Your task to perform on an android device: add a contact in the contacts app Image 0: 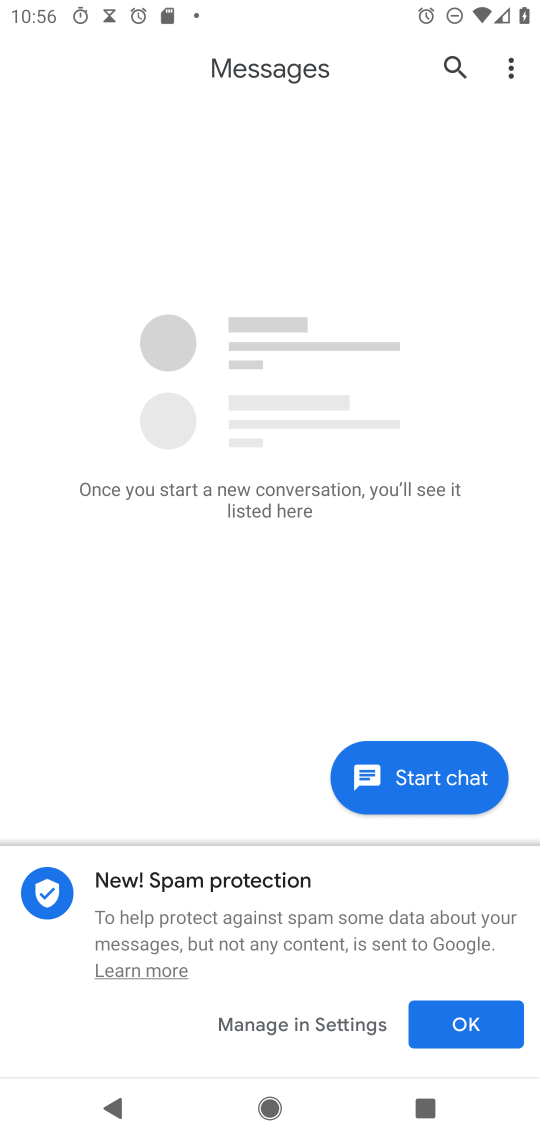
Step 0: press home button
Your task to perform on an android device: add a contact in the contacts app Image 1: 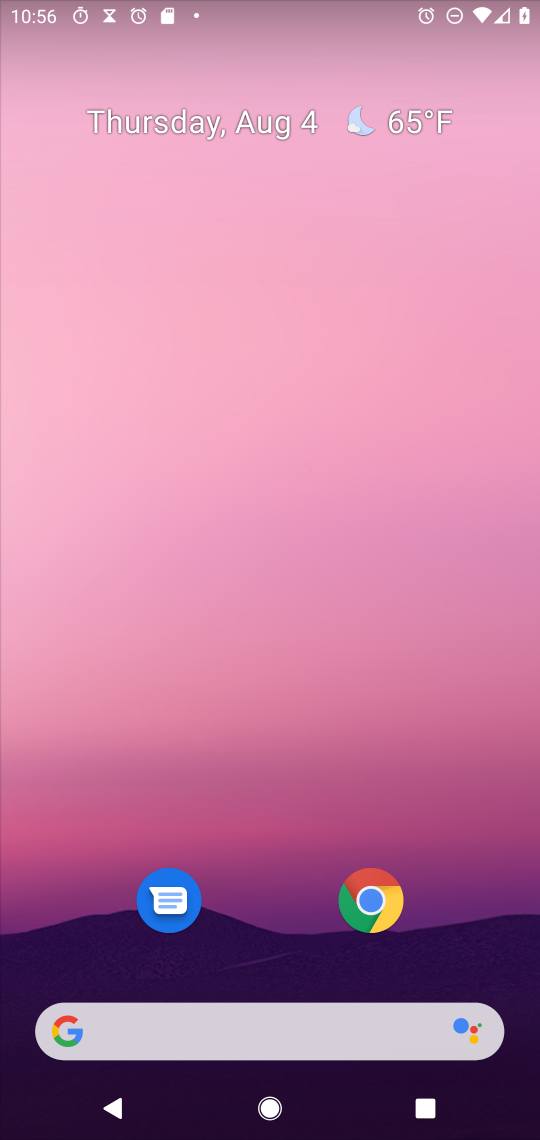
Step 1: drag from (255, 1026) to (210, 125)
Your task to perform on an android device: add a contact in the contacts app Image 2: 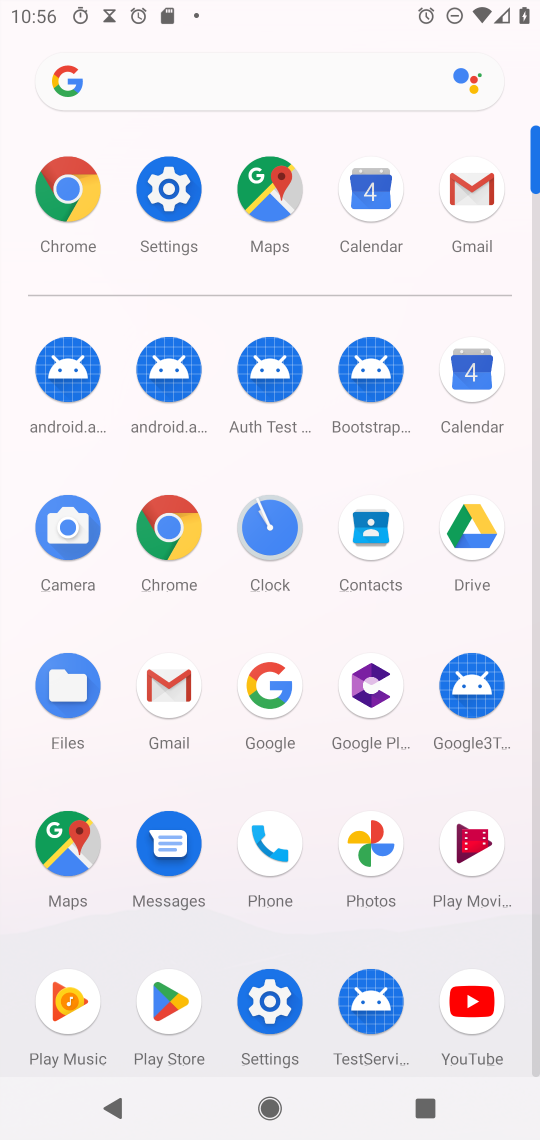
Step 2: click (366, 525)
Your task to perform on an android device: add a contact in the contacts app Image 3: 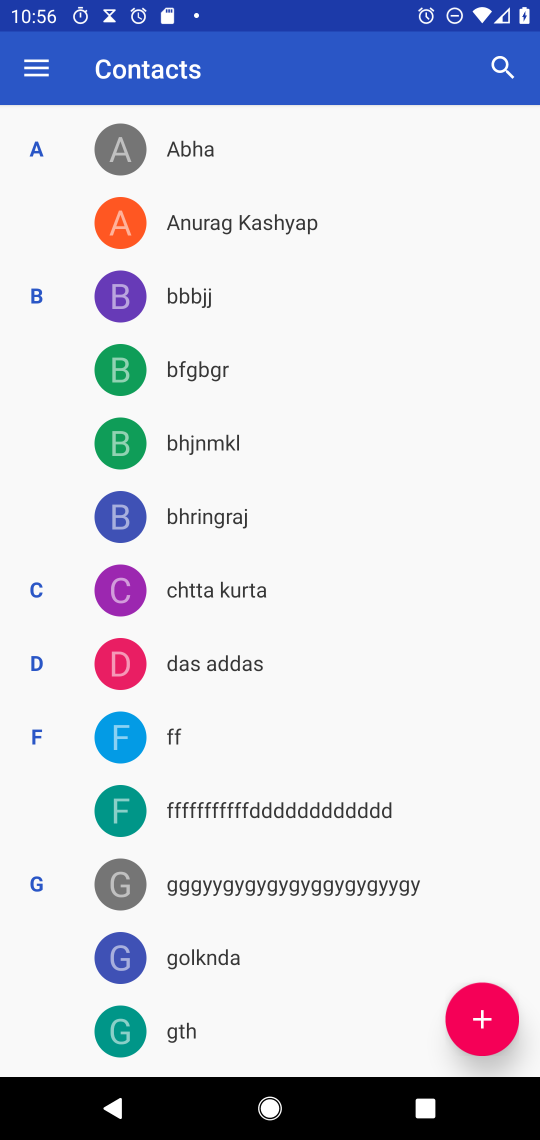
Step 3: click (480, 1019)
Your task to perform on an android device: add a contact in the contacts app Image 4: 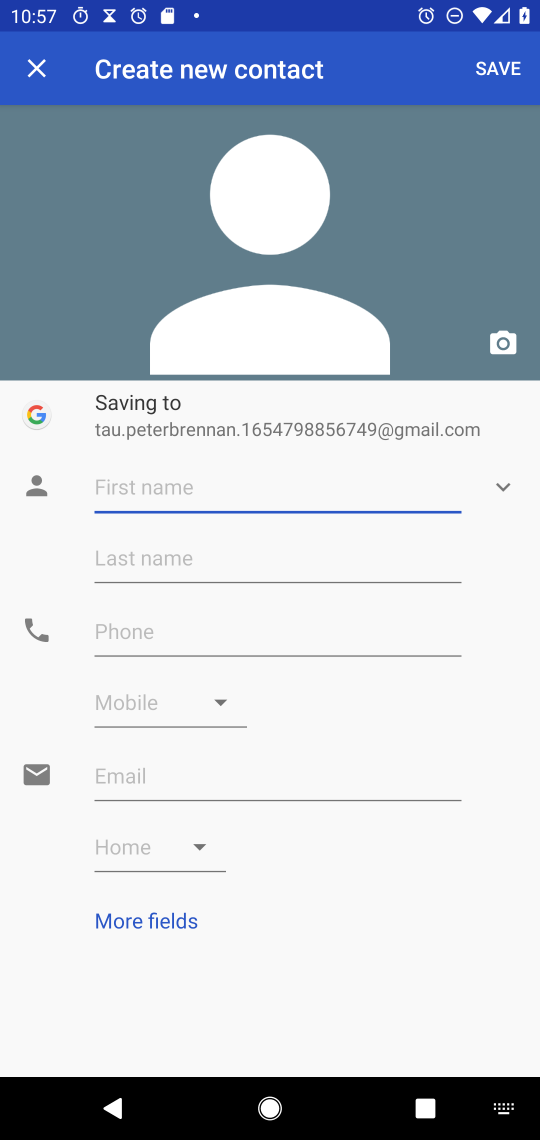
Step 4: click (218, 494)
Your task to perform on an android device: add a contact in the contacts app Image 5: 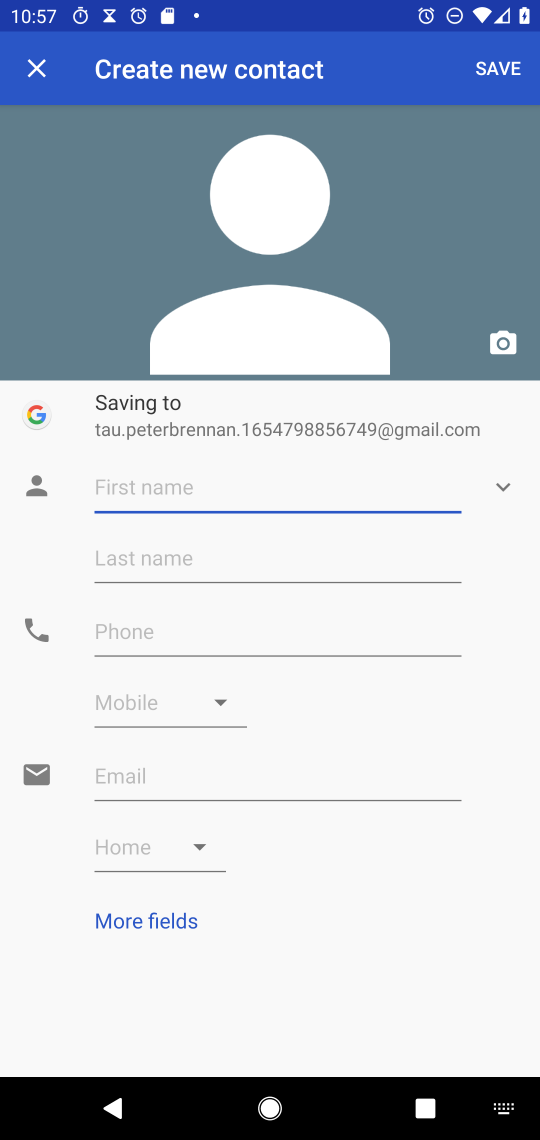
Step 5: type "satvik"
Your task to perform on an android device: add a contact in the contacts app Image 6: 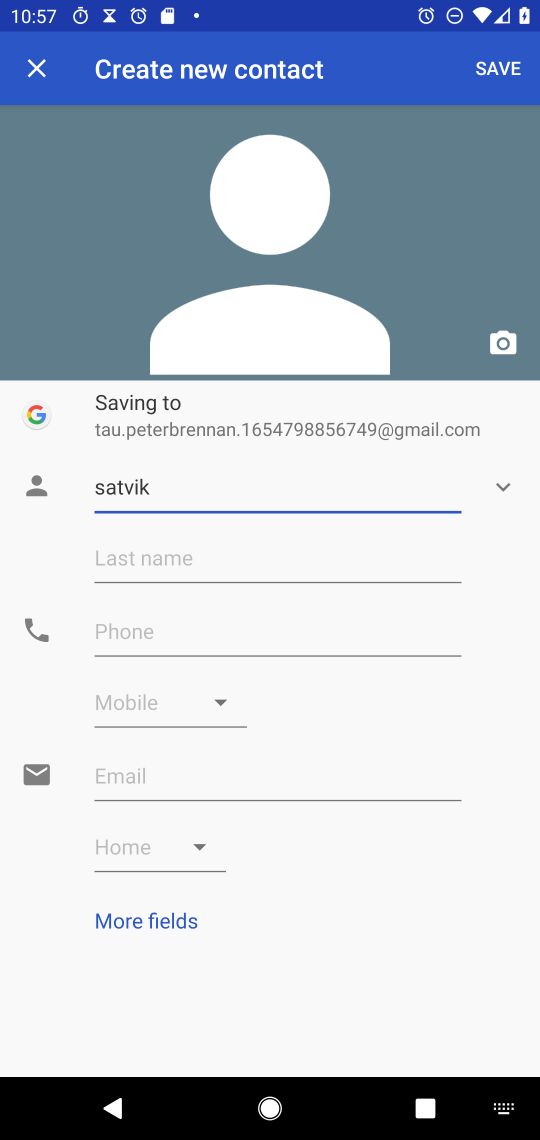
Step 6: click (191, 575)
Your task to perform on an android device: add a contact in the contacts app Image 7: 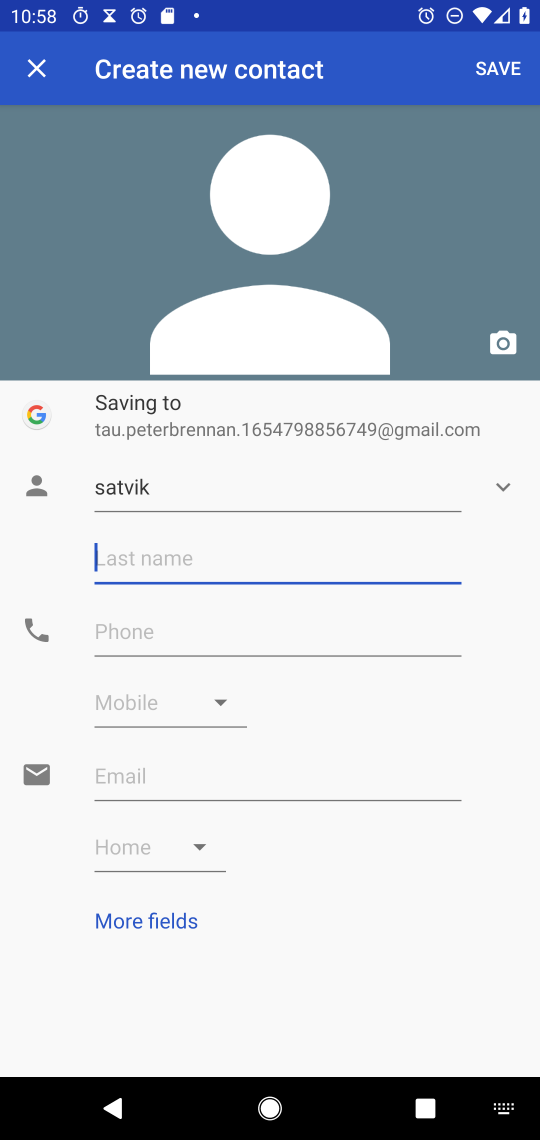
Step 7: type "Dubey"
Your task to perform on an android device: add a contact in the contacts app Image 8: 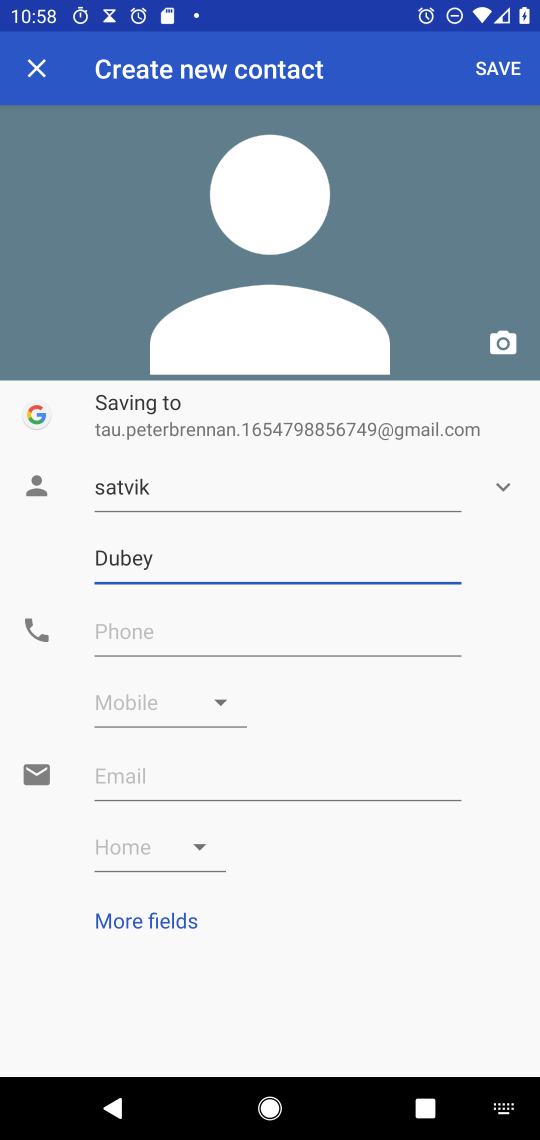
Step 8: click (170, 625)
Your task to perform on an android device: add a contact in the contacts app Image 9: 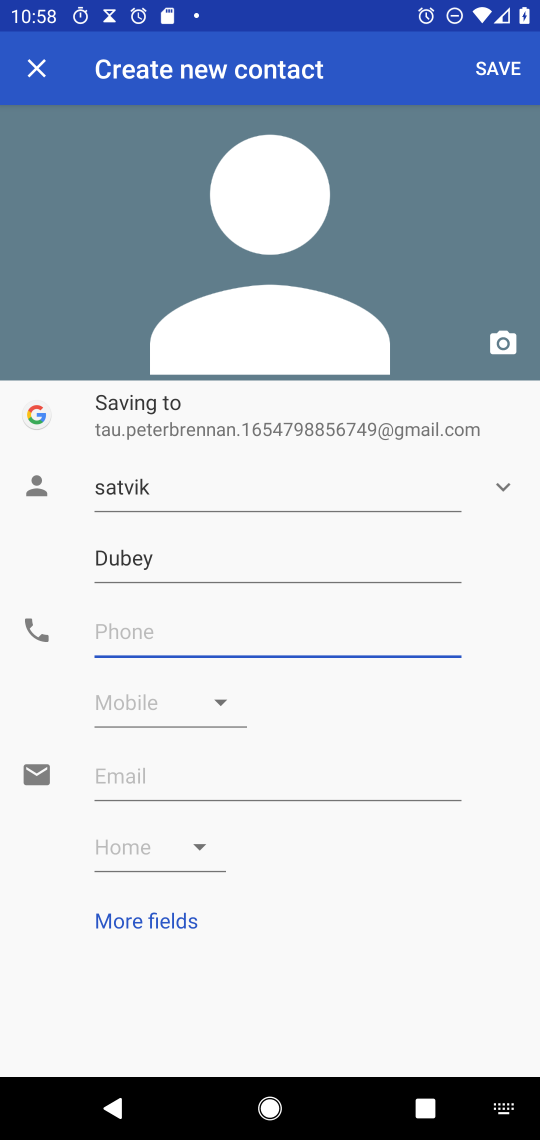
Step 9: type "0987654321"
Your task to perform on an android device: add a contact in the contacts app Image 10: 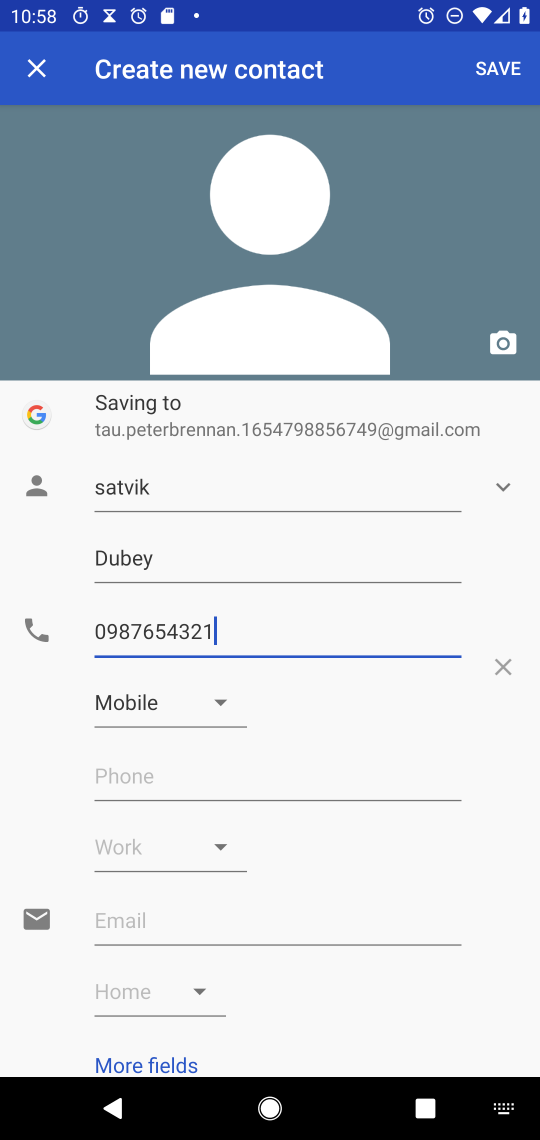
Step 10: click (510, 72)
Your task to perform on an android device: add a contact in the contacts app Image 11: 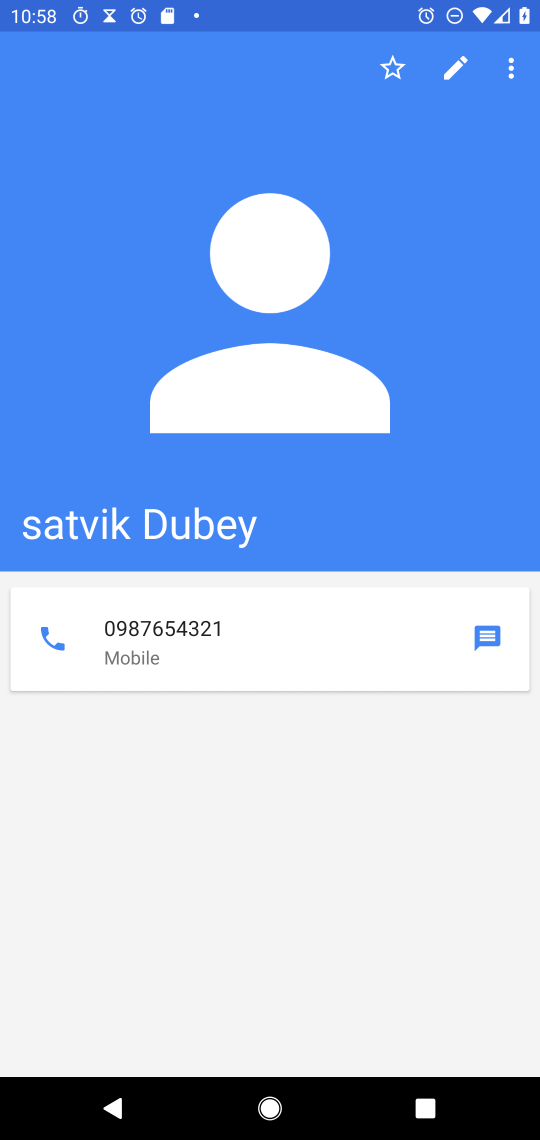
Step 11: task complete